Your task to perform on an android device: Go to Google maps Image 0: 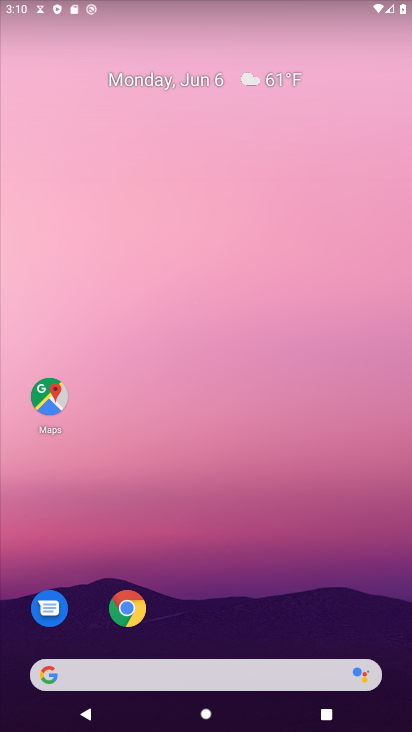
Step 0: drag from (239, 607) to (379, 11)
Your task to perform on an android device: Go to Google maps Image 1: 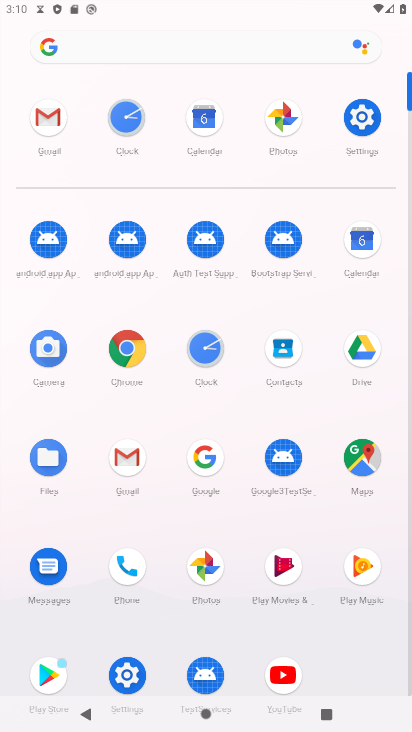
Step 1: click (45, 111)
Your task to perform on an android device: Go to Google maps Image 2: 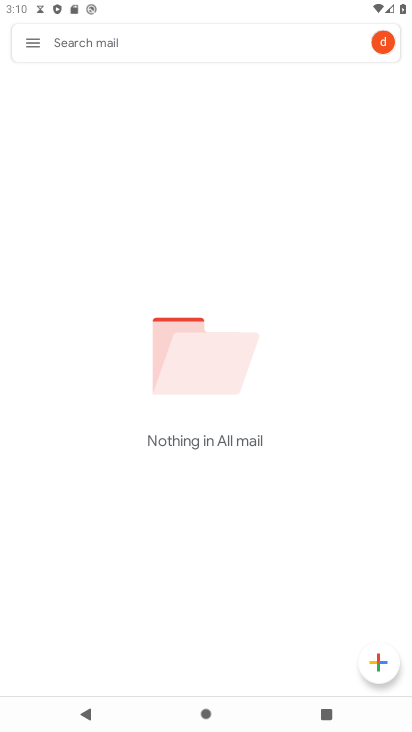
Step 2: press home button
Your task to perform on an android device: Go to Google maps Image 3: 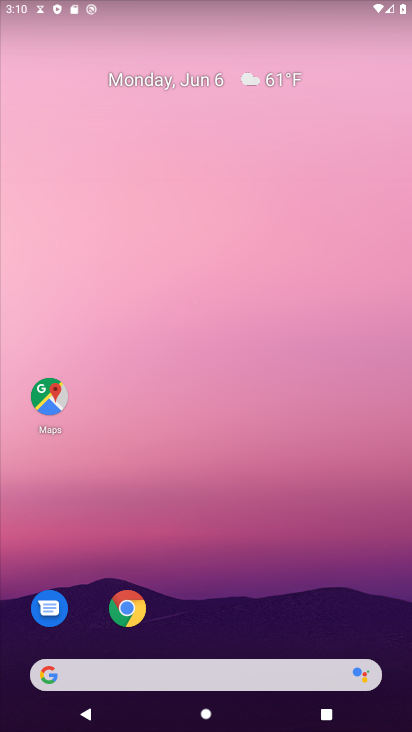
Step 3: click (52, 398)
Your task to perform on an android device: Go to Google maps Image 4: 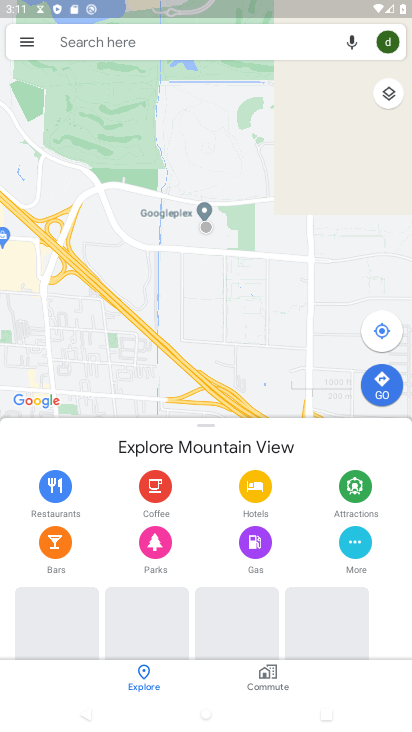
Step 4: task complete